Your task to perform on an android device: open chrome and create a bookmark for the current page Image 0: 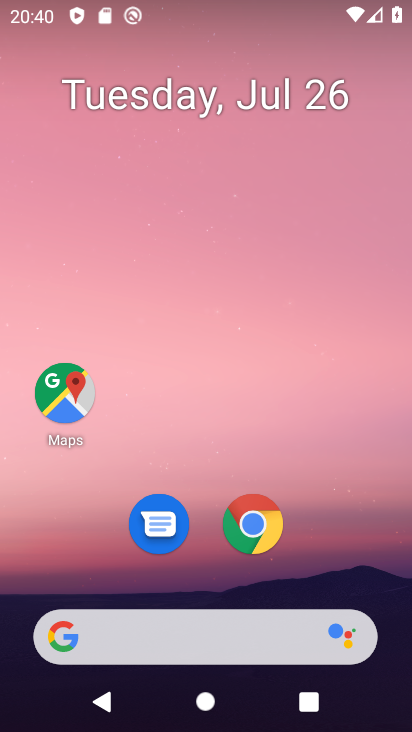
Step 0: click (252, 531)
Your task to perform on an android device: open chrome and create a bookmark for the current page Image 1: 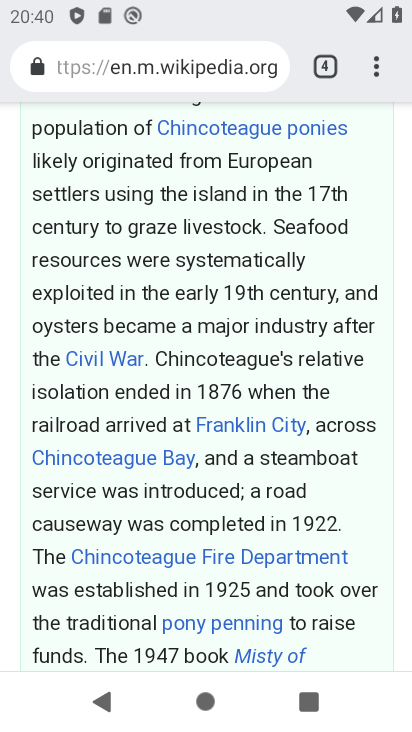
Step 1: click (377, 85)
Your task to perform on an android device: open chrome and create a bookmark for the current page Image 2: 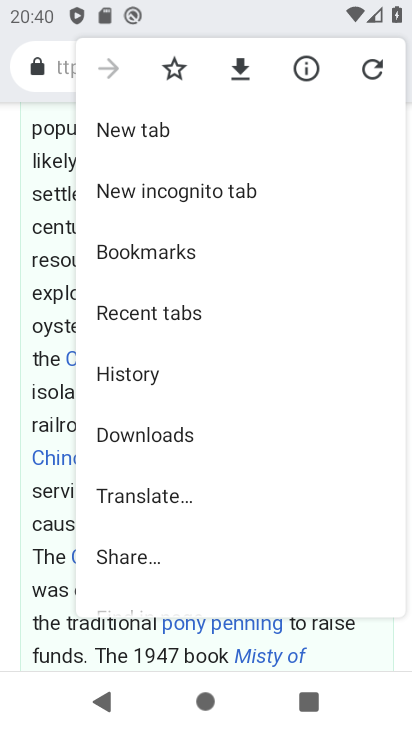
Step 2: click (173, 66)
Your task to perform on an android device: open chrome and create a bookmark for the current page Image 3: 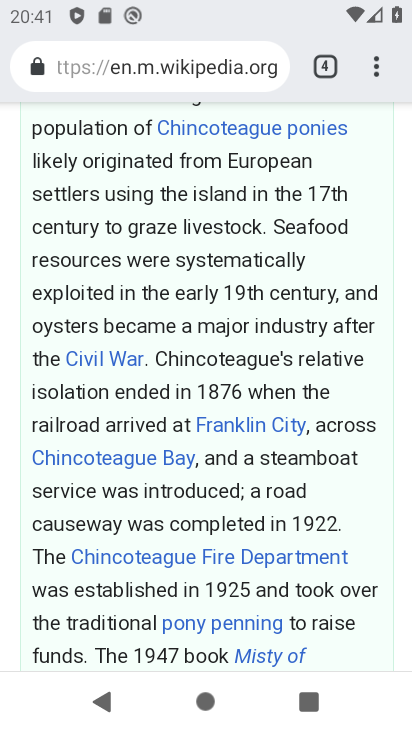
Step 3: task complete